Your task to perform on an android device: Is it going to rain this weekend? Image 0: 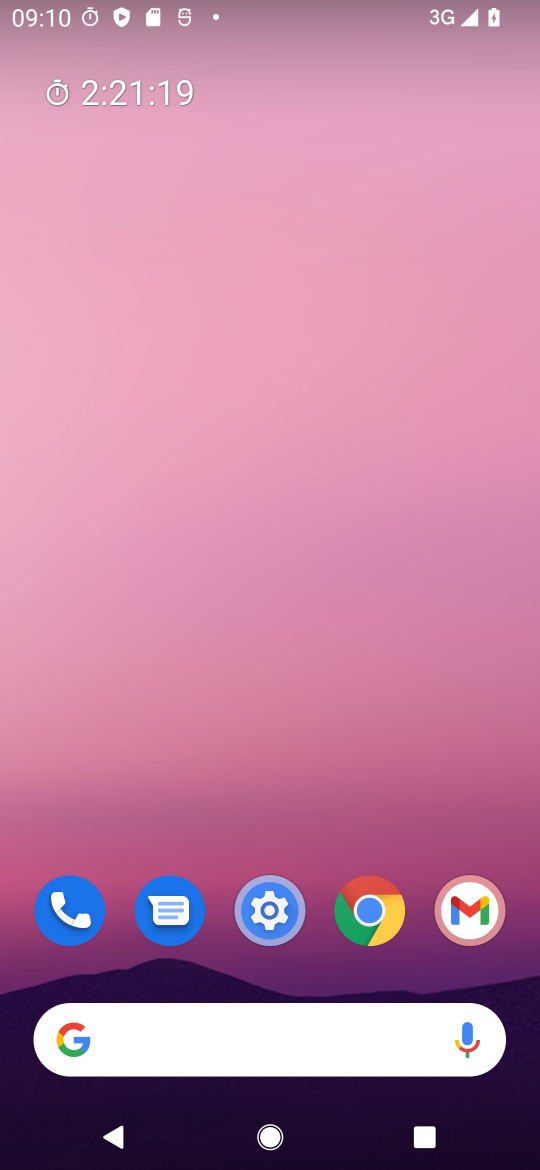
Step 0: drag from (227, 1022) to (225, 39)
Your task to perform on an android device: Is it going to rain this weekend? Image 1: 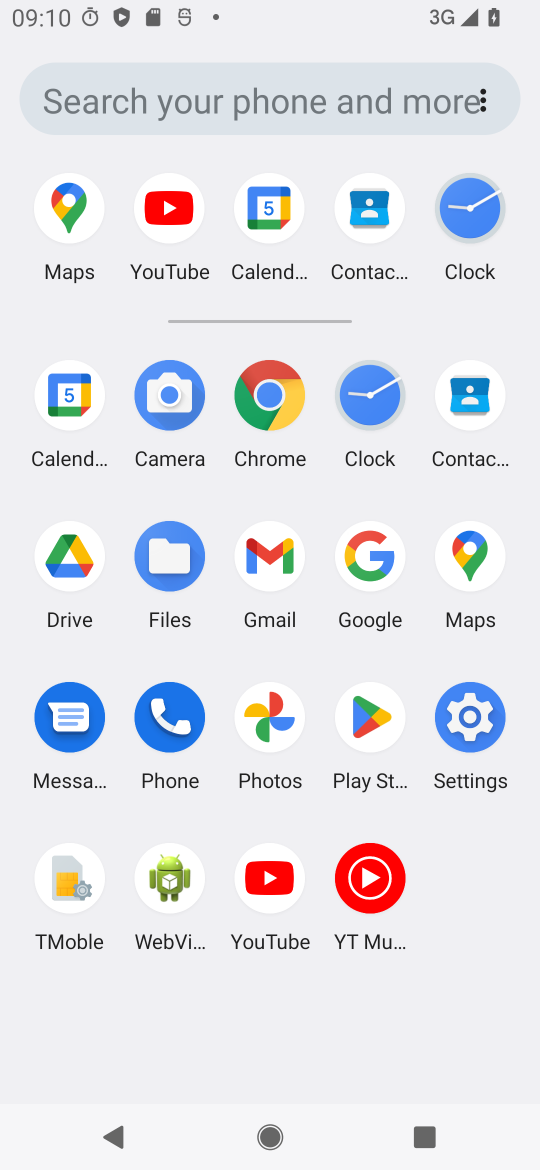
Step 1: click (269, 396)
Your task to perform on an android device: Is it going to rain this weekend? Image 2: 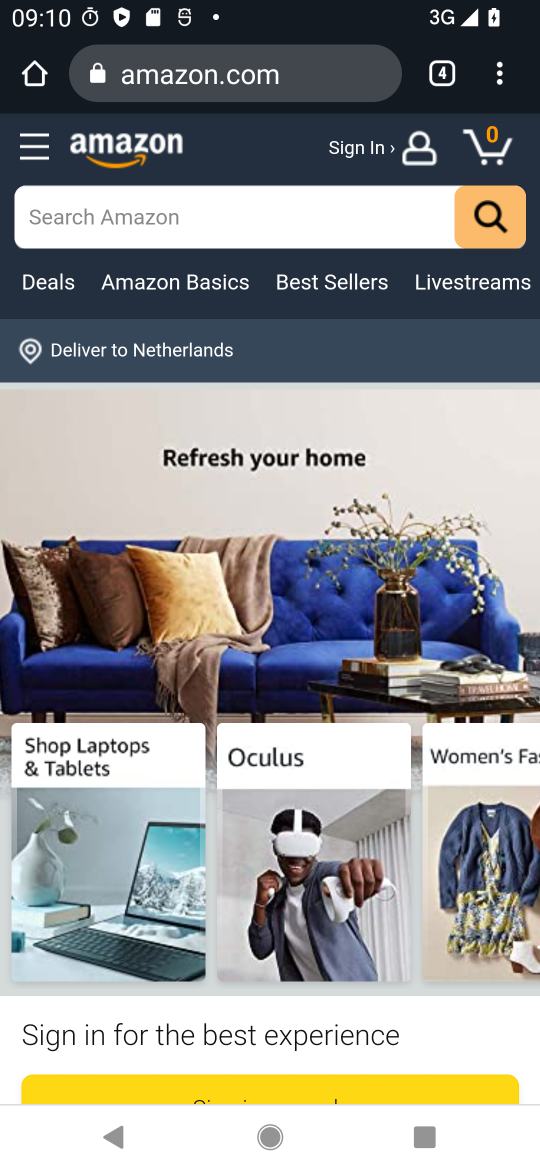
Step 2: click (370, 104)
Your task to perform on an android device: Is it going to rain this weekend? Image 3: 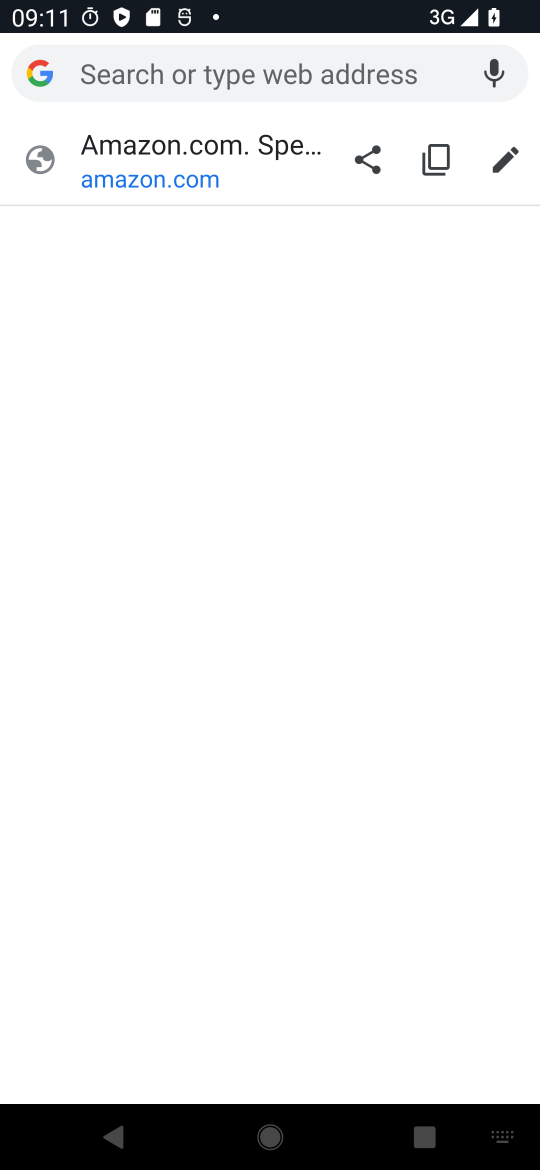
Step 3: type "is it going to rain this weekend"
Your task to perform on an android device: Is it going to rain this weekend? Image 4: 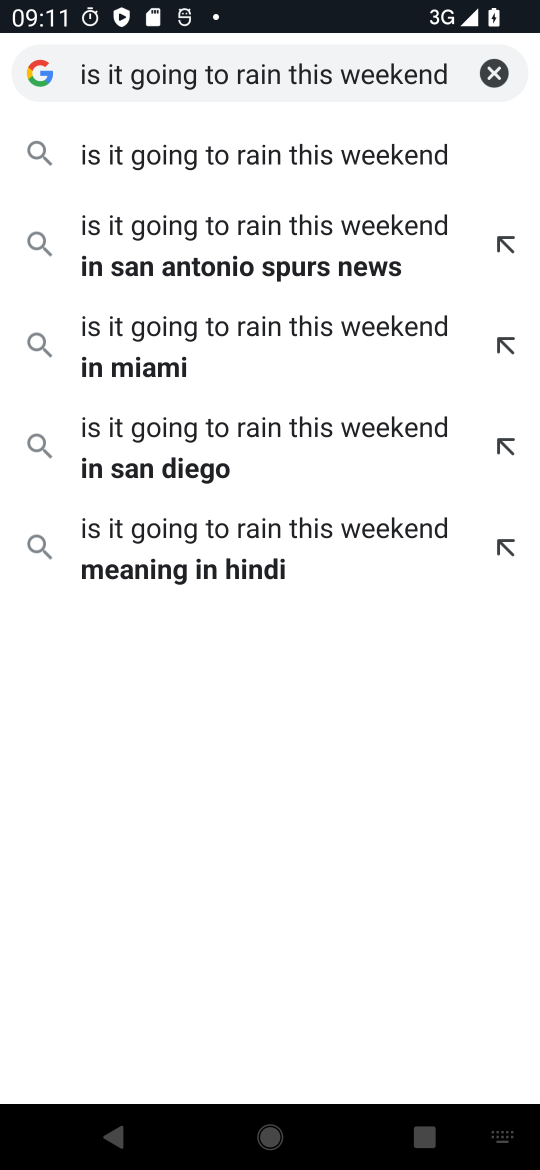
Step 4: click (244, 178)
Your task to perform on an android device: Is it going to rain this weekend? Image 5: 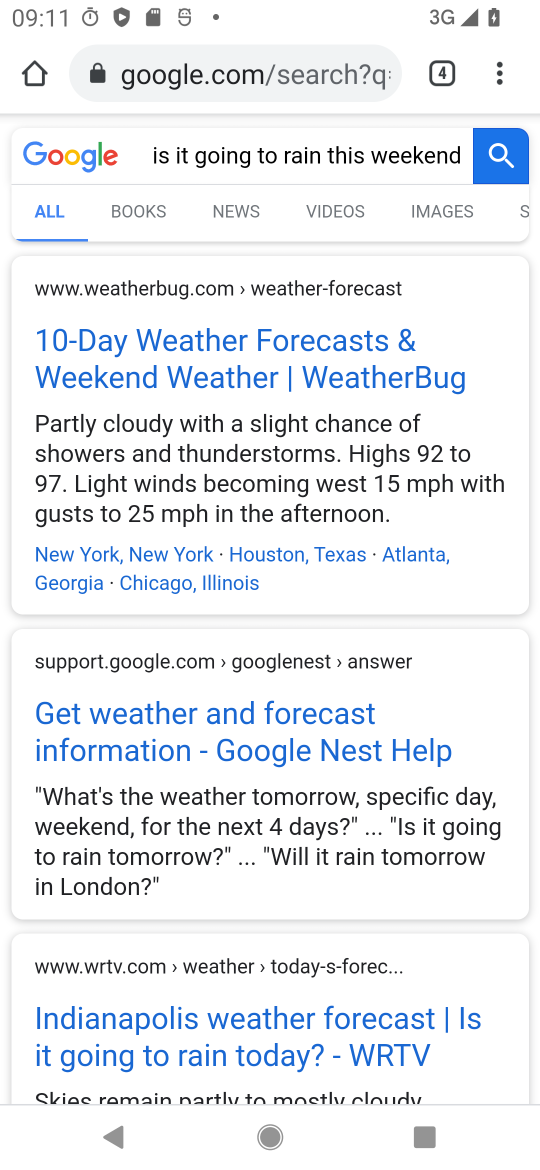
Step 5: task complete